Your task to perform on an android device: Open Amazon Image 0: 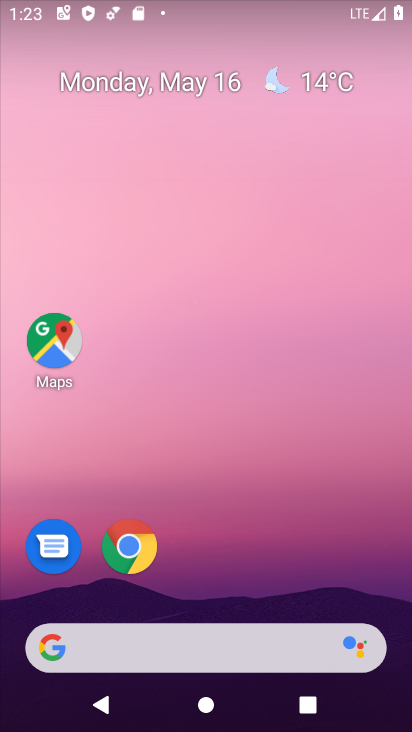
Step 0: drag from (248, 679) to (334, 214)
Your task to perform on an android device: Open Amazon Image 1: 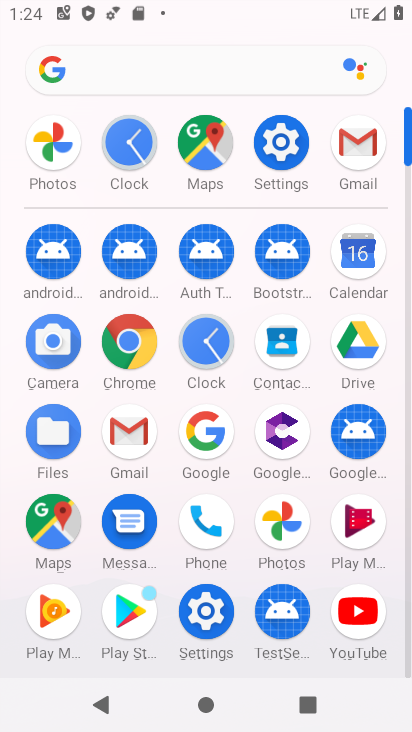
Step 1: click (117, 348)
Your task to perform on an android device: Open Amazon Image 2: 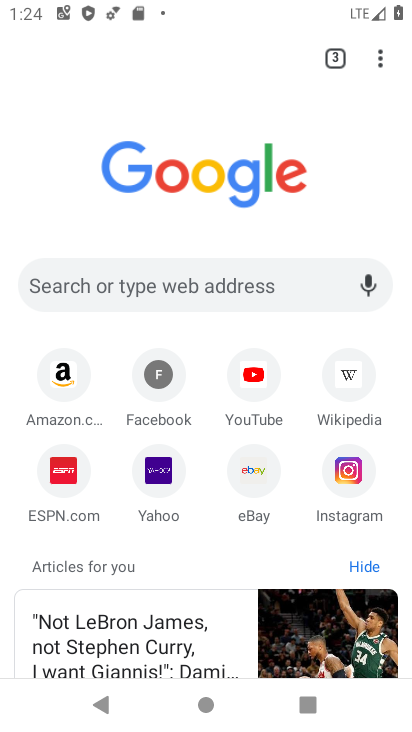
Step 2: click (64, 393)
Your task to perform on an android device: Open Amazon Image 3: 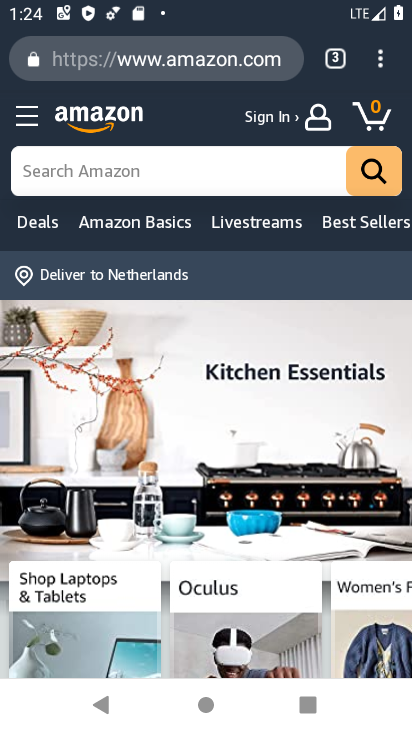
Step 3: task complete